Your task to perform on an android device: Go to eBay Image 0: 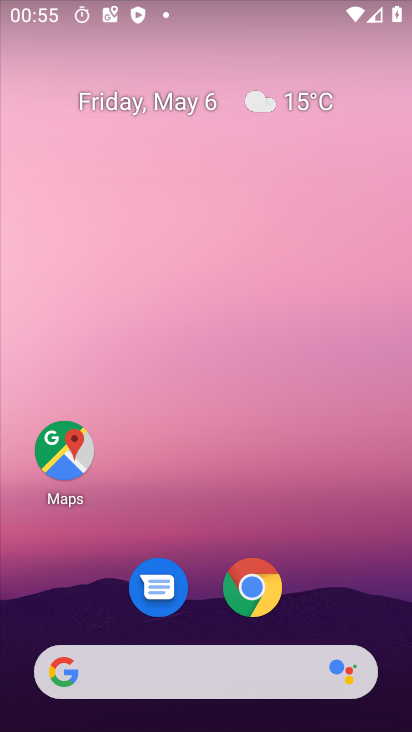
Step 0: click (262, 585)
Your task to perform on an android device: Go to eBay Image 1: 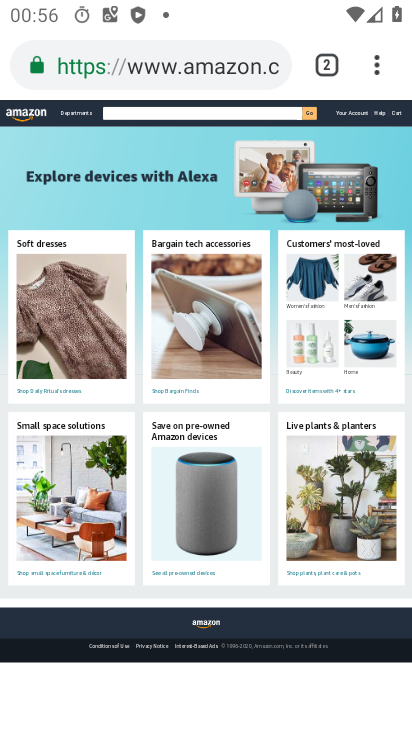
Step 1: click (296, 64)
Your task to perform on an android device: Go to eBay Image 2: 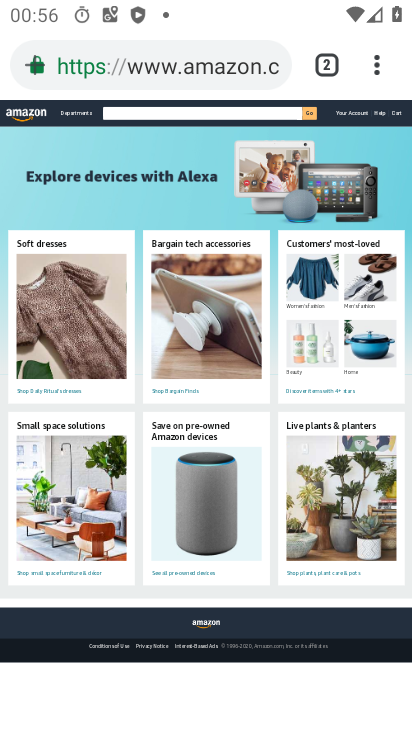
Step 2: click (283, 62)
Your task to perform on an android device: Go to eBay Image 3: 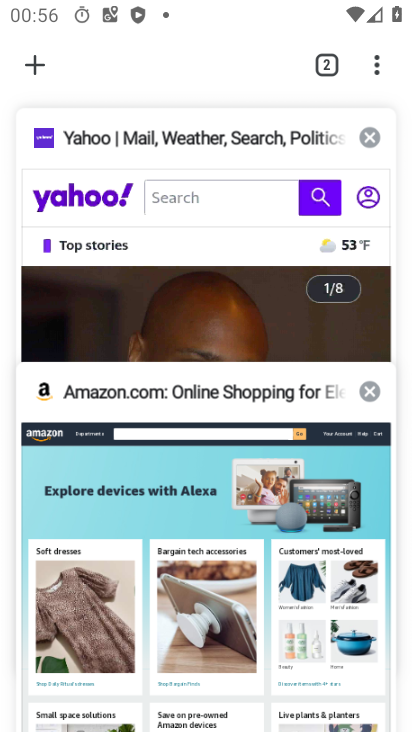
Step 3: click (194, 208)
Your task to perform on an android device: Go to eBay Image 4: 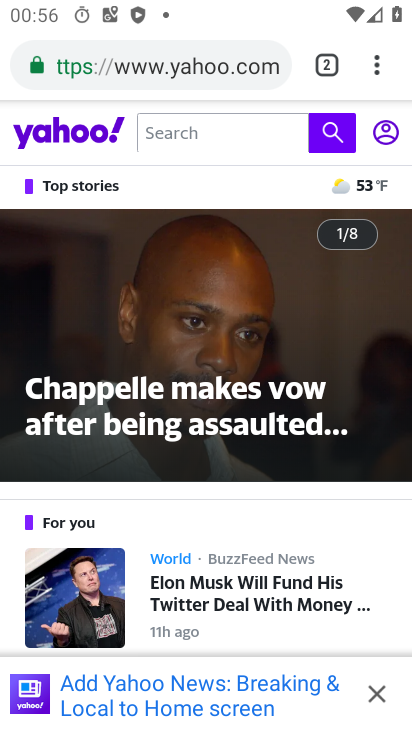
Step 4: click (275, 69)
Your task to perform on an android device: Go to eBay Image 5: 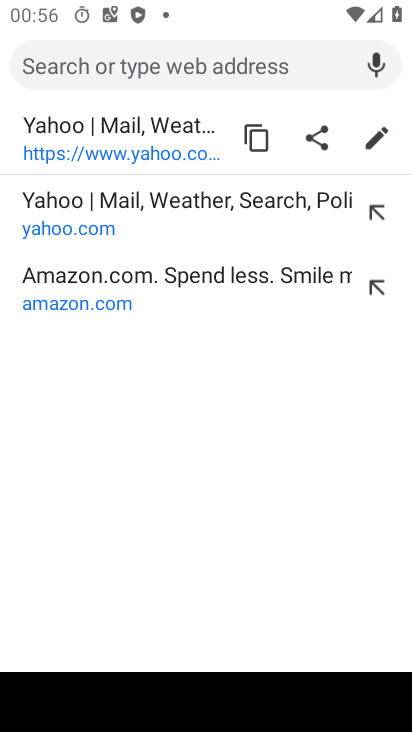
Step 5: type " eBay"
Your task to perform on an android device: Go to eBay Image 6: 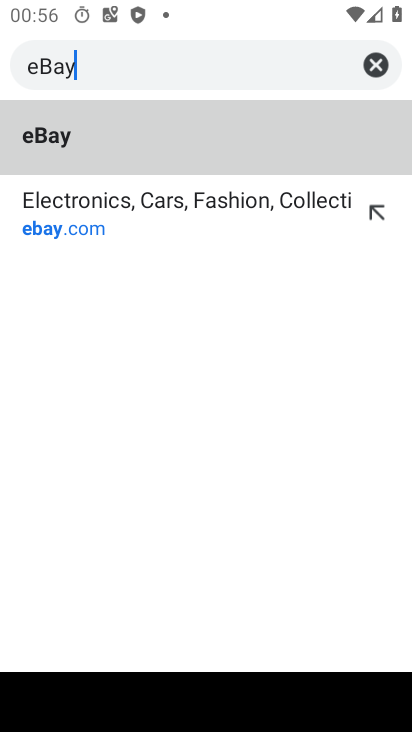
Step 6: click (45, 143)
Your task to perform on an android device: Go to eBay Image 7: 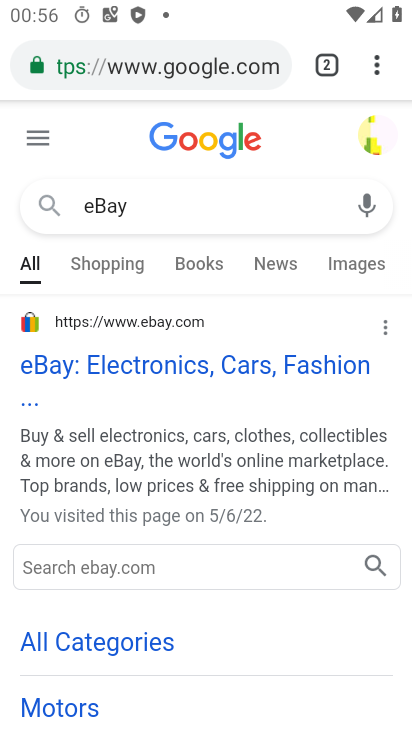
Step 7: task complete